Your task to perform on an android device: Show me the alarms in the clock app Image 0: 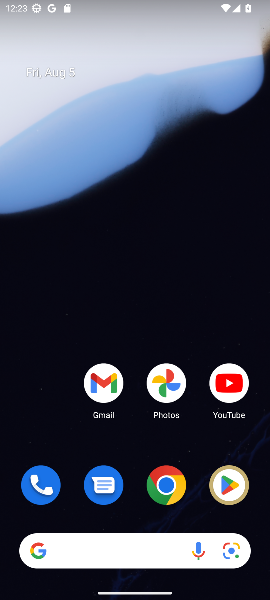
Step 0: drag from (23, 421) to (39, 16)
Your task to perform on an android device: Show me the alarms in the clock app Image 1: 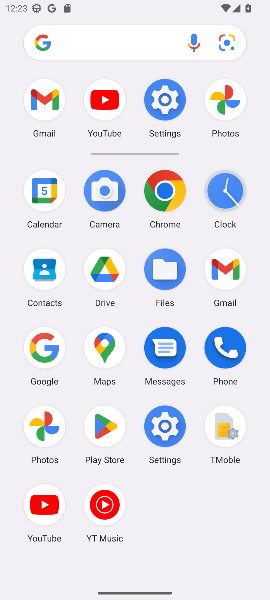
Step 1: click (219, 197)
Your task to perform on an android device: Show me the alarms in the clock app Image 2: 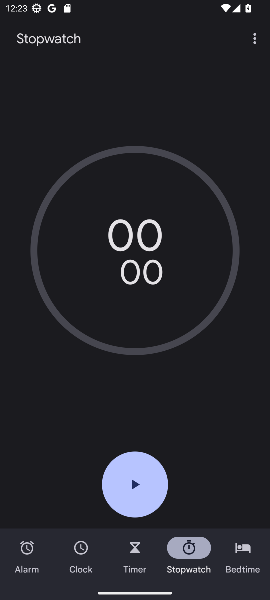
Step 2: click (26, 549)
Your task to perform on an android device: Show me the alarms in the clock app Image 3: 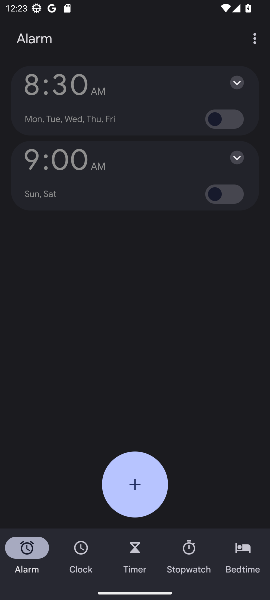
Step 3: task complete